Your task to perform on an android device: stop showing notifications on the lock screen Image 0: 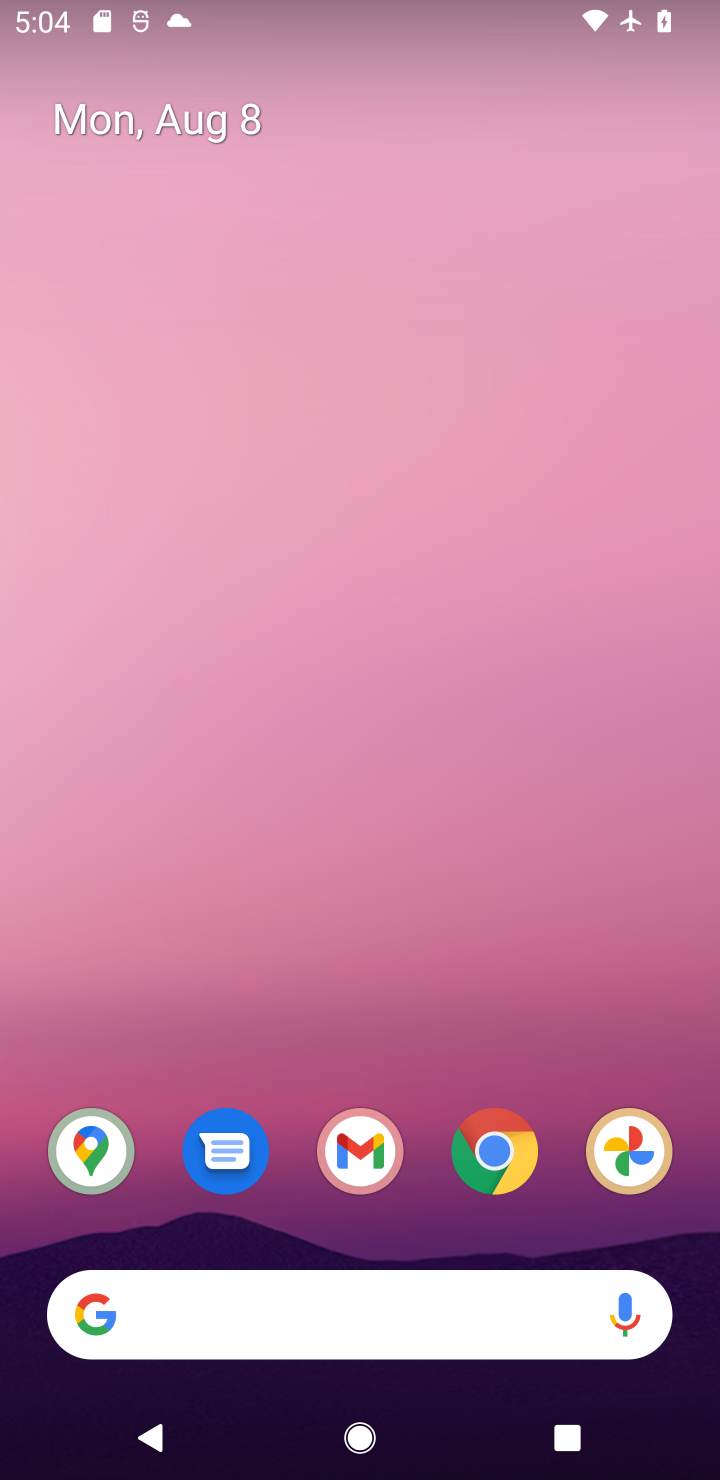
Step 0: drag from (459, 1077) to (485, 63)
Your task to perform on an android device: stop showing notifications on the lock screen Image 1: 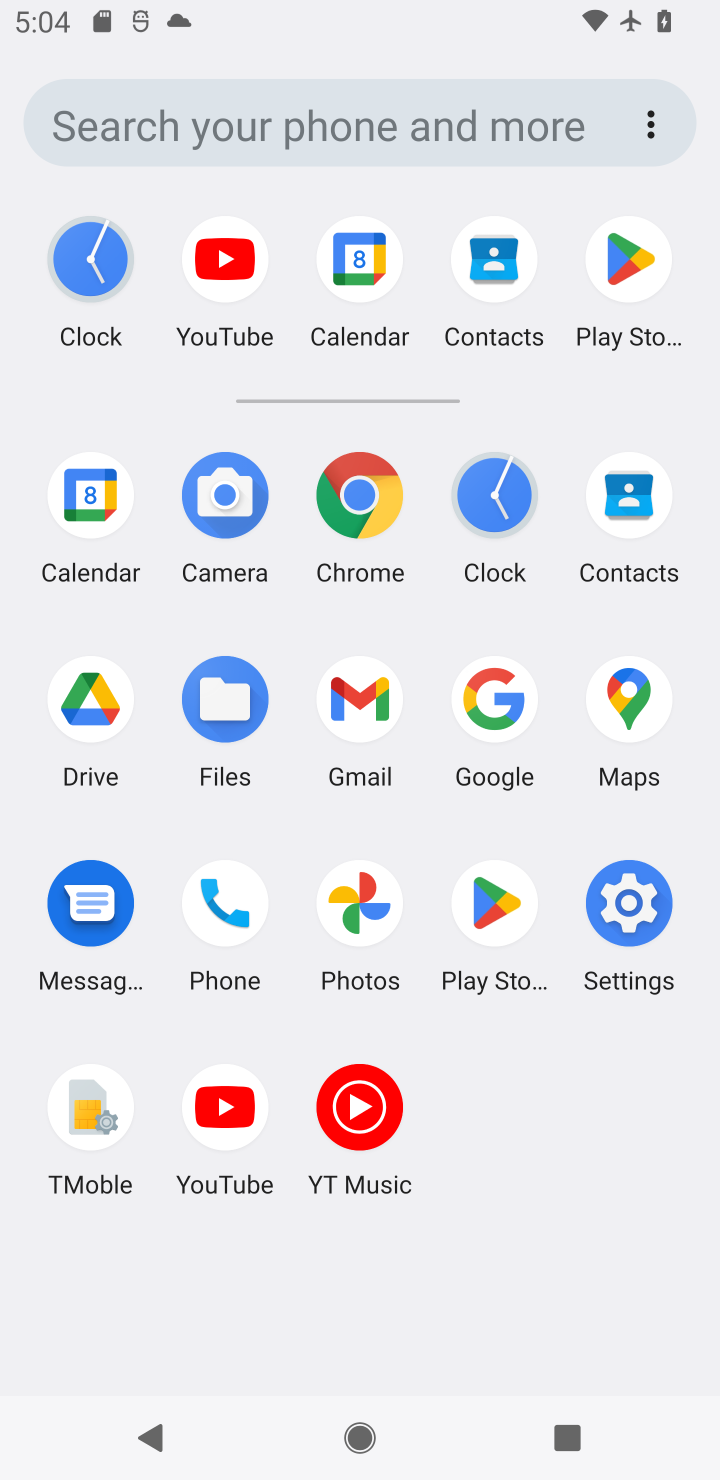
Step 1: click (645, 908)
Your task to perform on an android device: stop showing notifications on the lock screen Image 2: 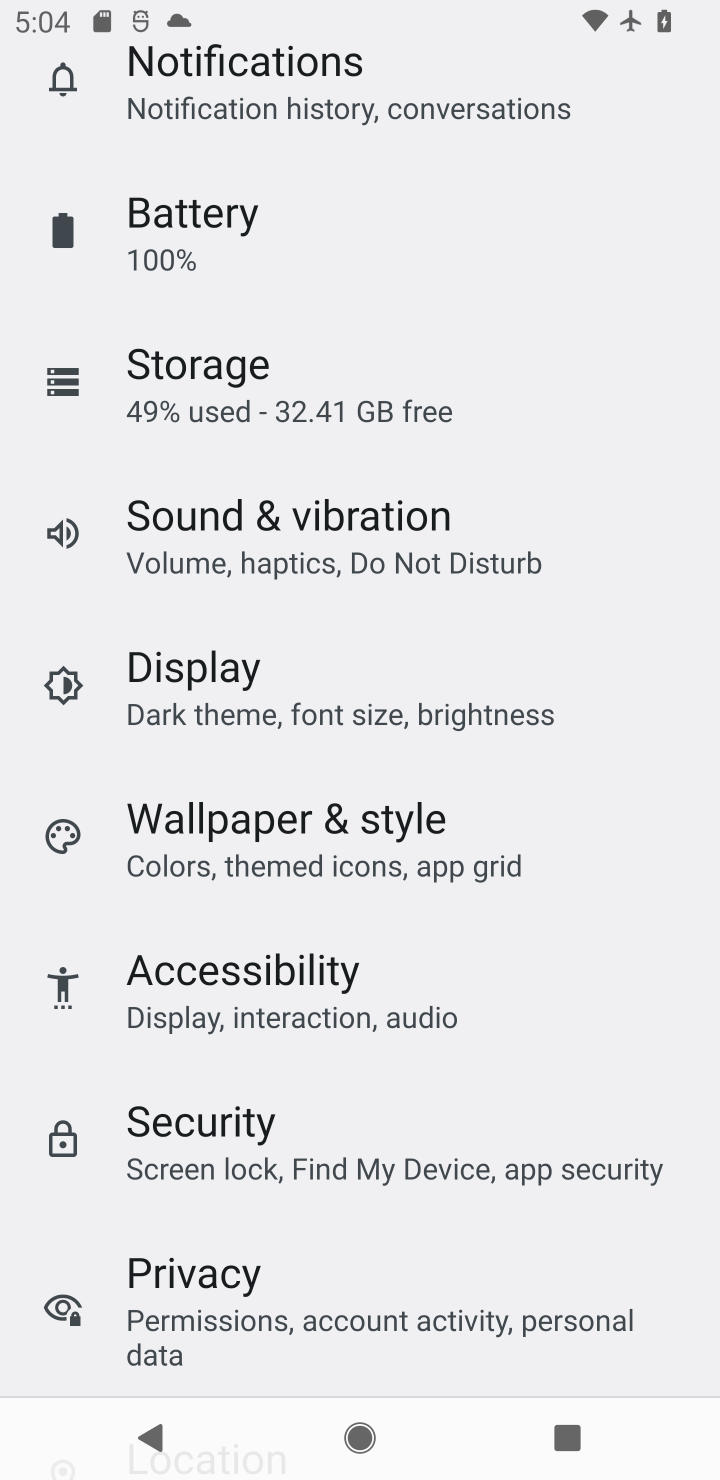
Step 2: click (332, 89)
Your task to perform on an android device: stop showing notifications on the lock screen Image 3: 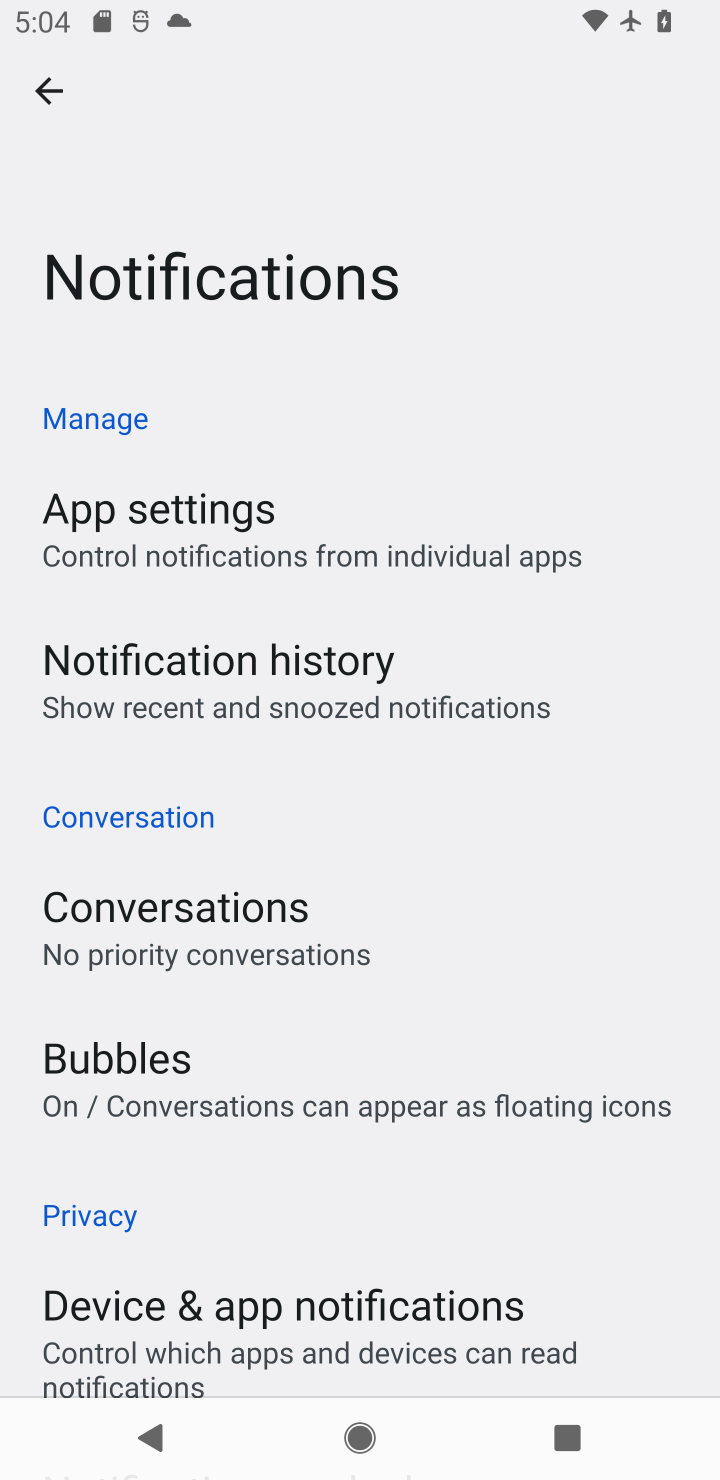
Step 3: drag from (290, 1262) to (360, 521)
Your task to perform on an android device: stop showing notifications on the lock screen Image 4: 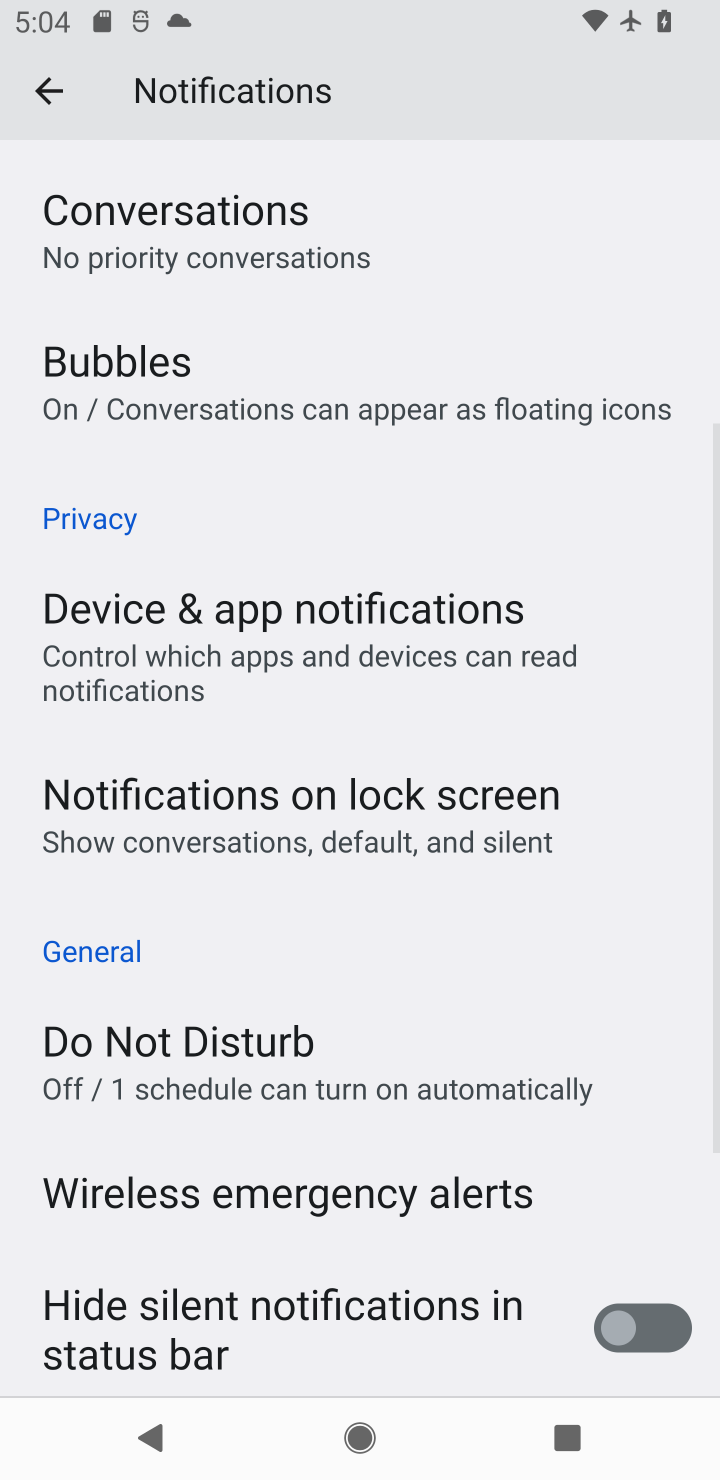
Step 4: click (388, 837)
Your task to perform on an android device: stop showing notifications on the lock screen Image 5: 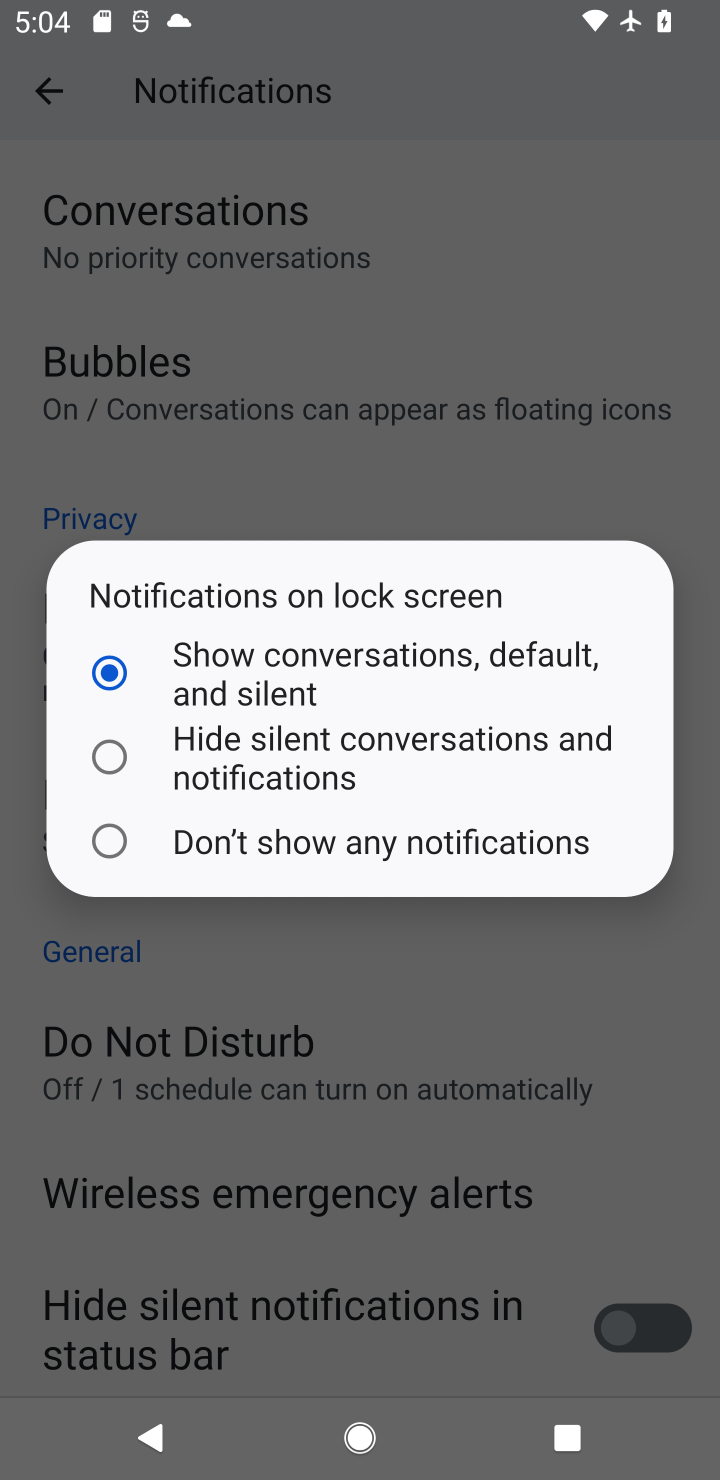
Step 5: click (342, 832)
Your task to perform on an android device: stop showing notifications on the lock screen Image 6: 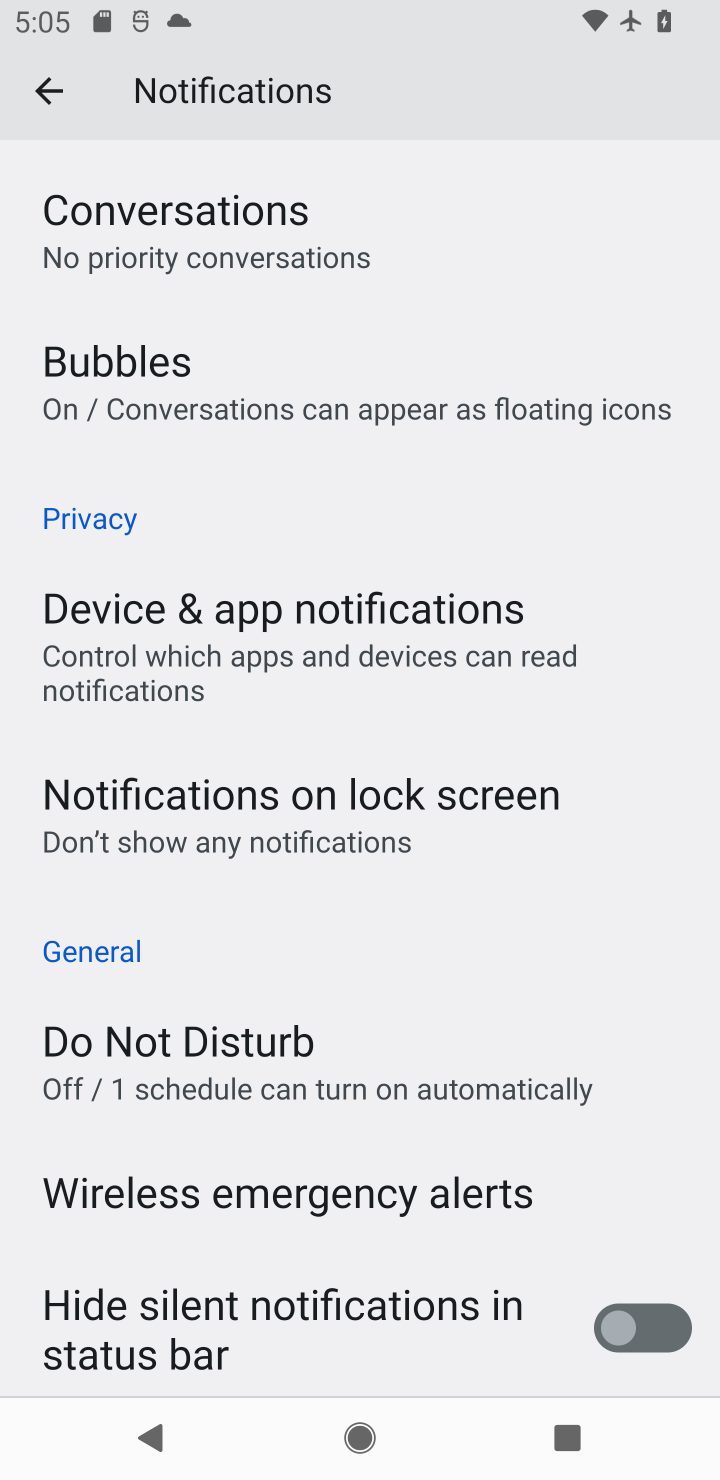
Step 6: task complete